Your task to perform on an android device: turn on wifi Image 0: 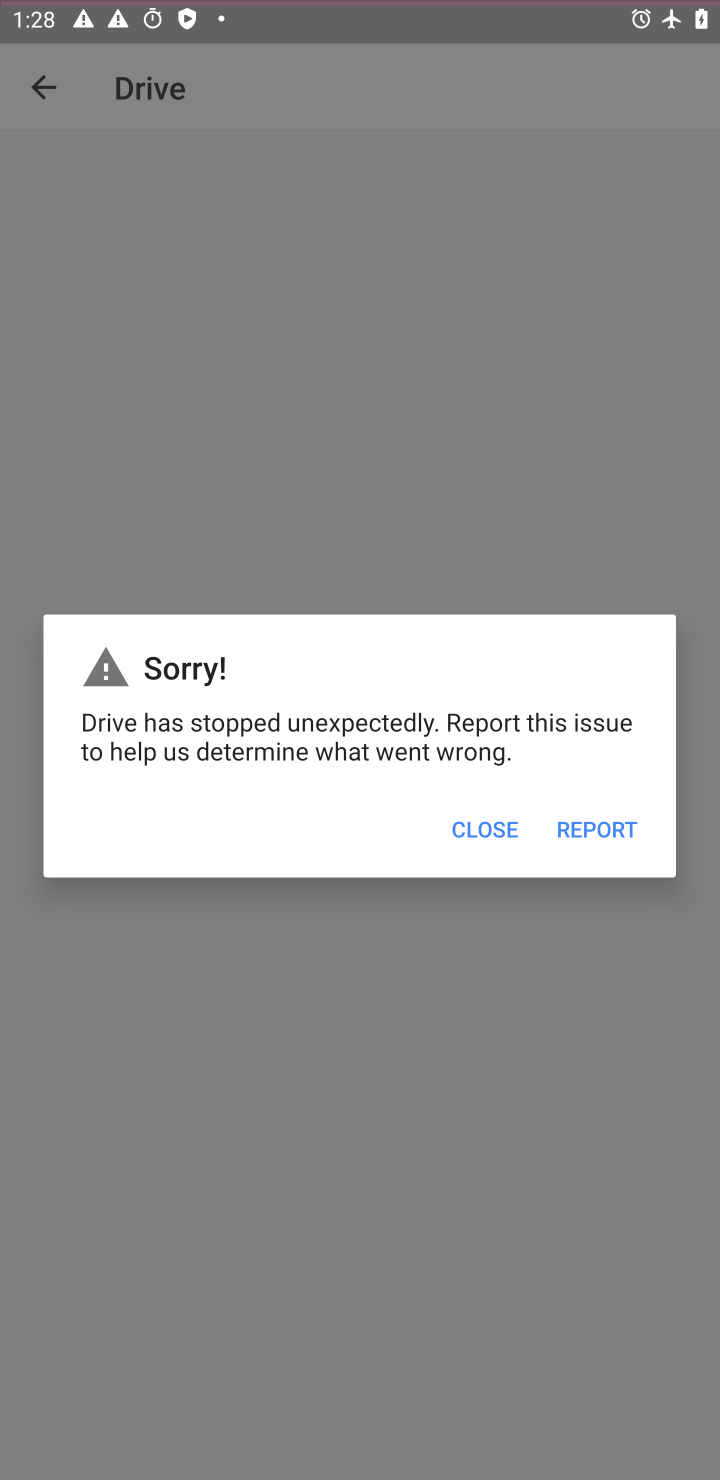
Step 0: press home button
Your task to perform on an android device: turn on wifi Image 1: 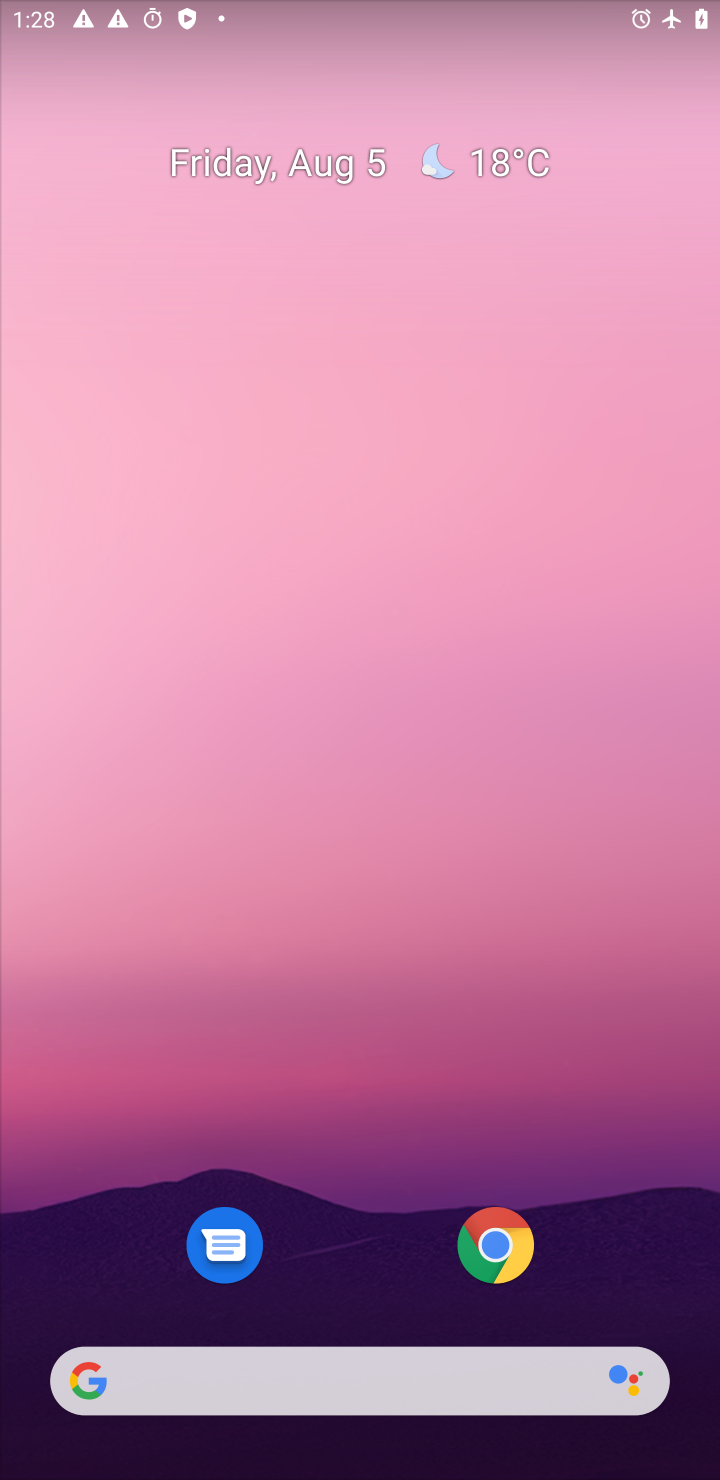
Step 1: press home button
Your task to perform on an android device: turn on wifi Image 2: 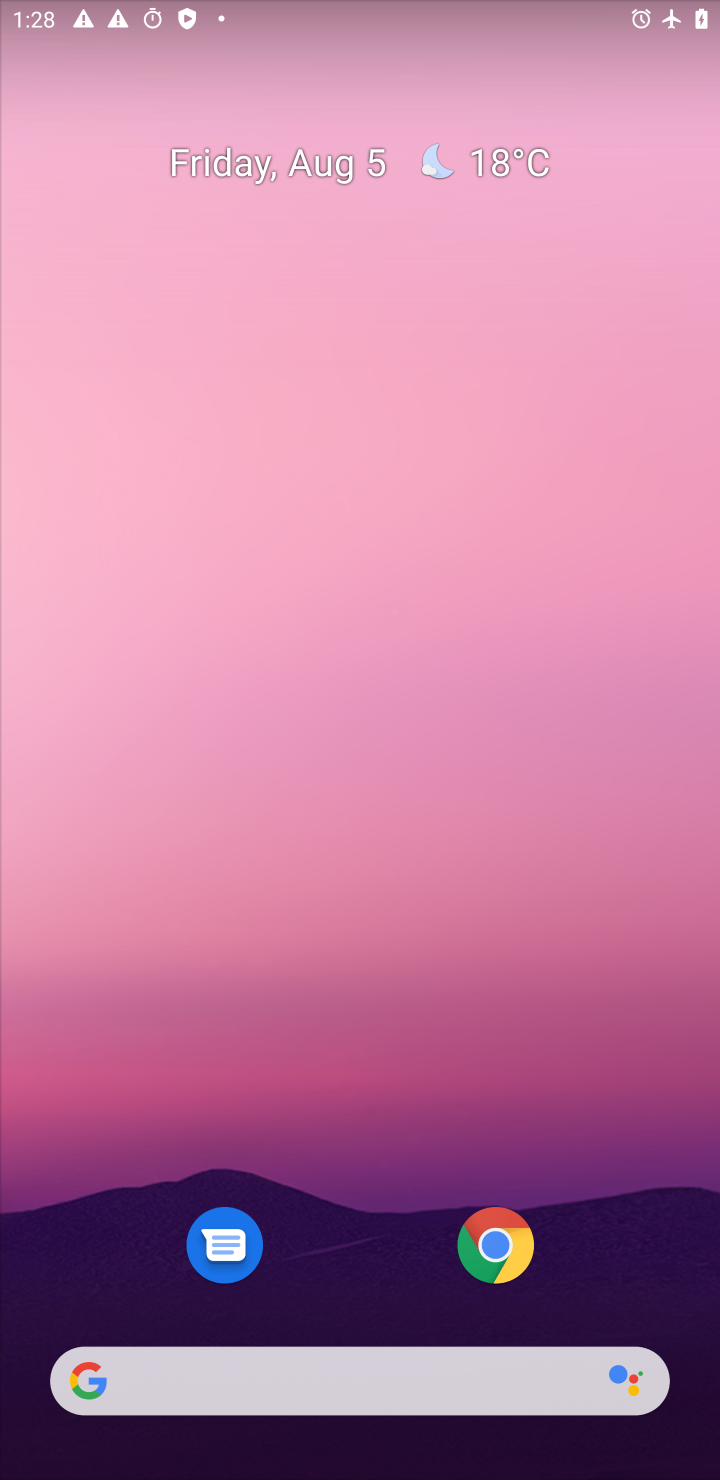
Step 2: drag from (410, 10) to (382, 530)
Your task to perform on an android device: turn on wifi Image 3: 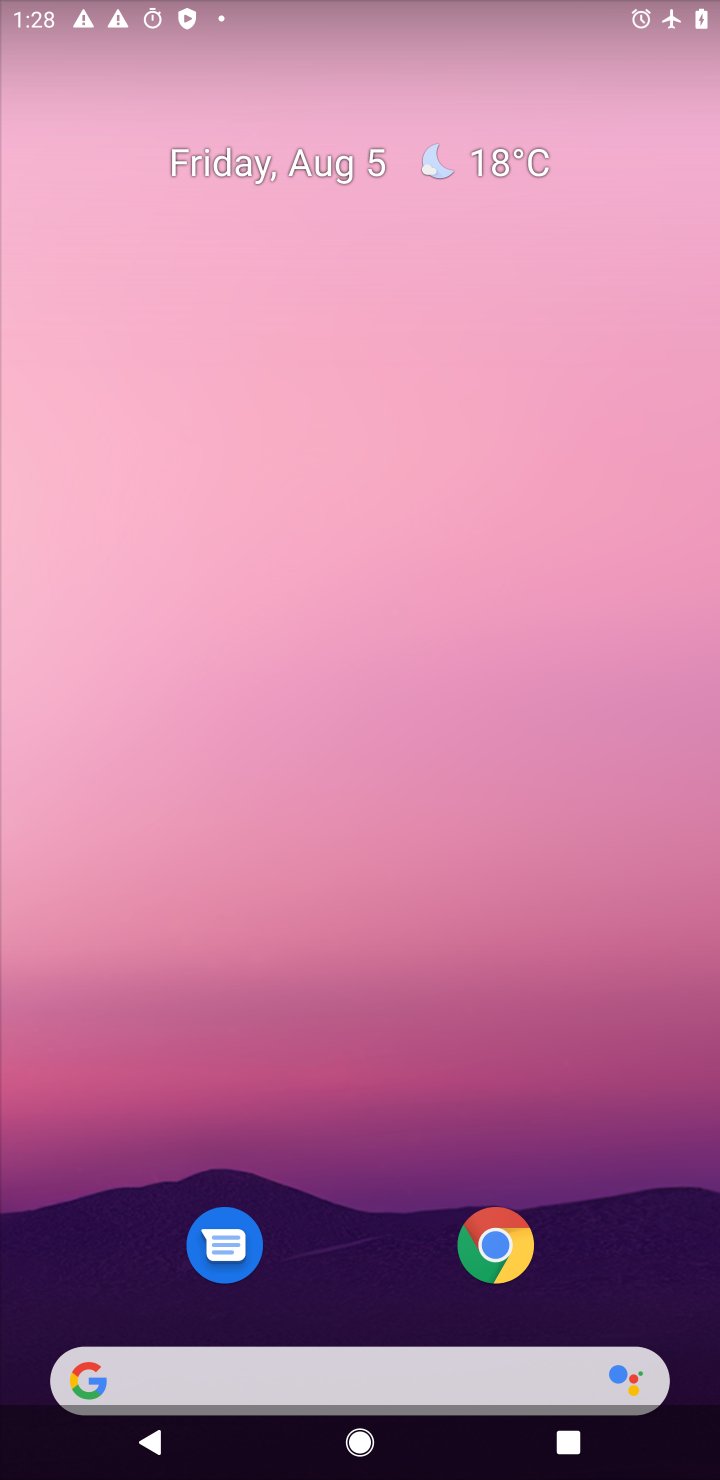
Step 3: drag from (451, 66) to (321, 1308)
Your task to perform on an android device: turn on wifi Image 4: 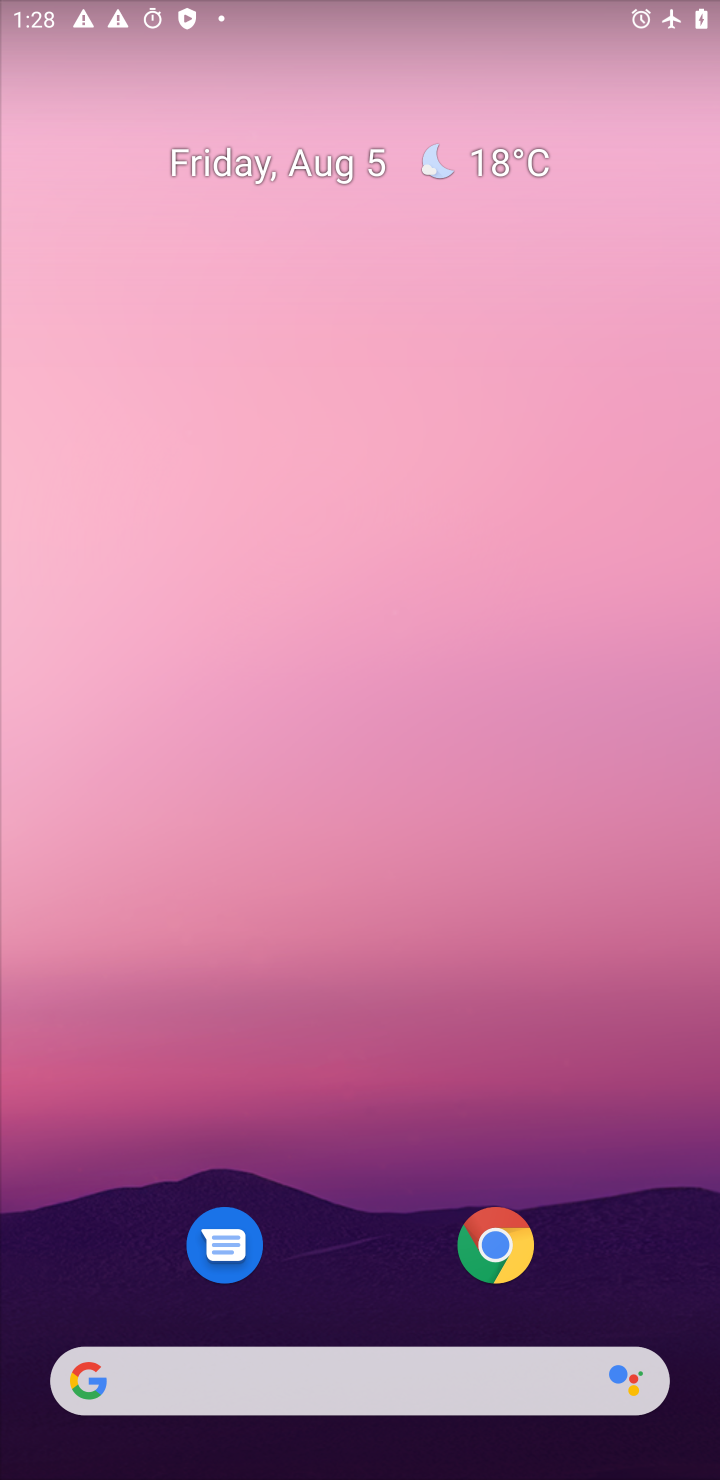
Step 4: drag from (313, 21) to (180, 901)
Your task to perform on an android device: turn on wifi Image 5: 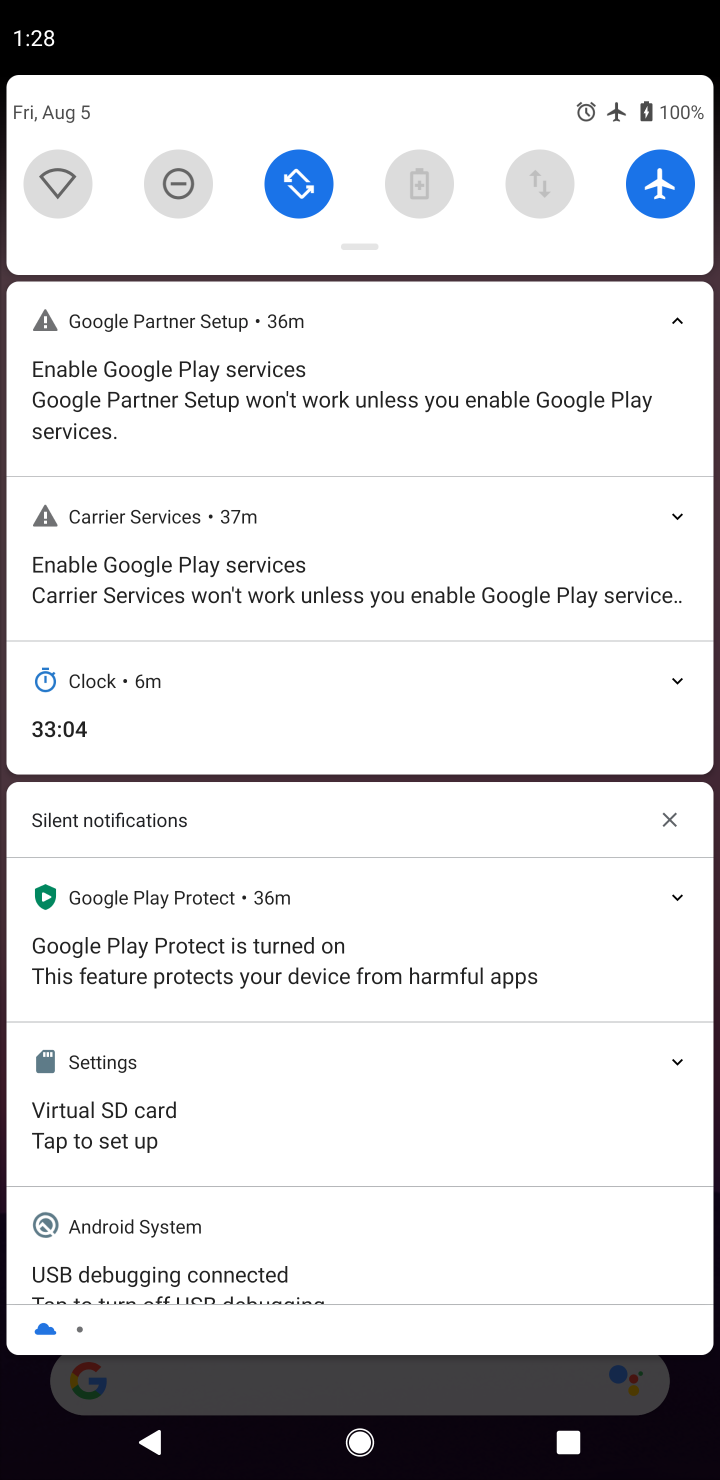
Step 5: click (49, 173)
Your task to perform on an android device: turn on wifi Image 6: 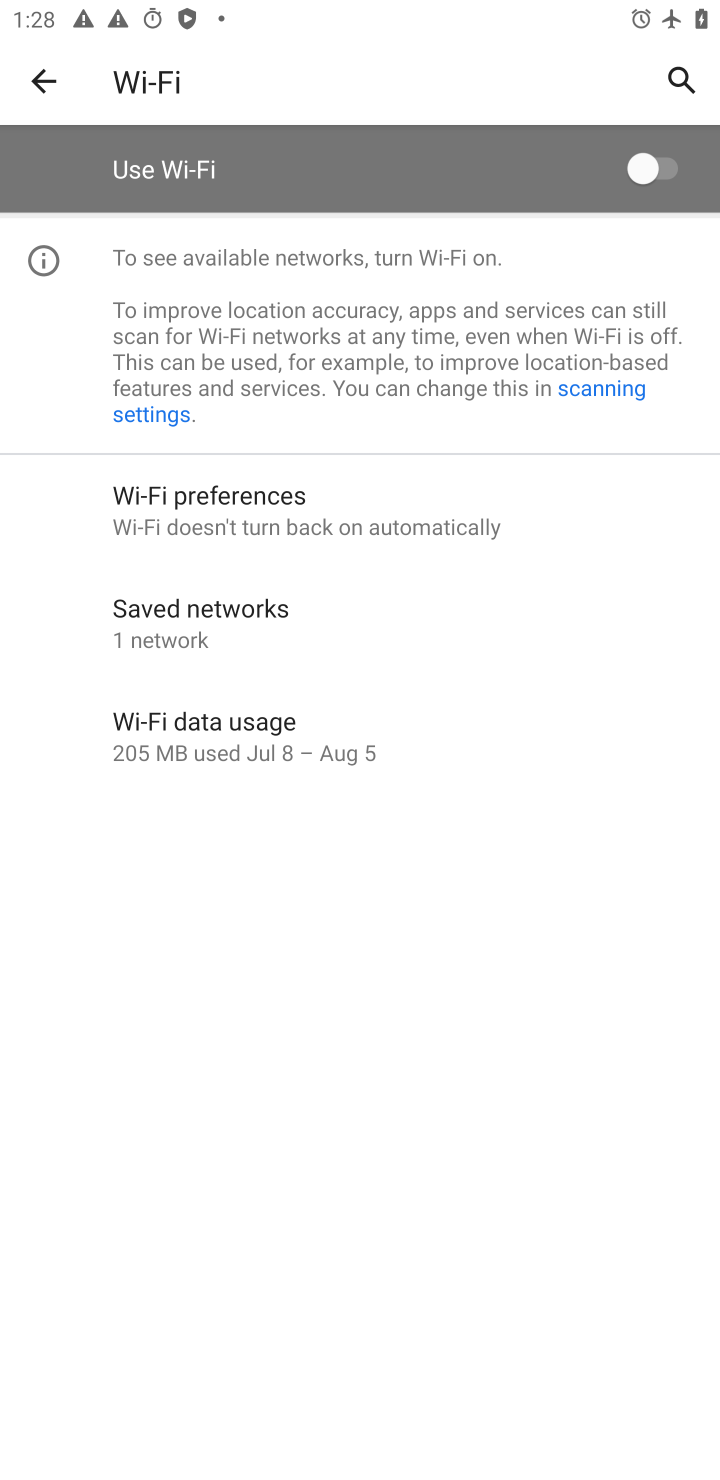
Step 6: click (651, 168)
Your task to perform on an android device: turn on wifi Image 7: 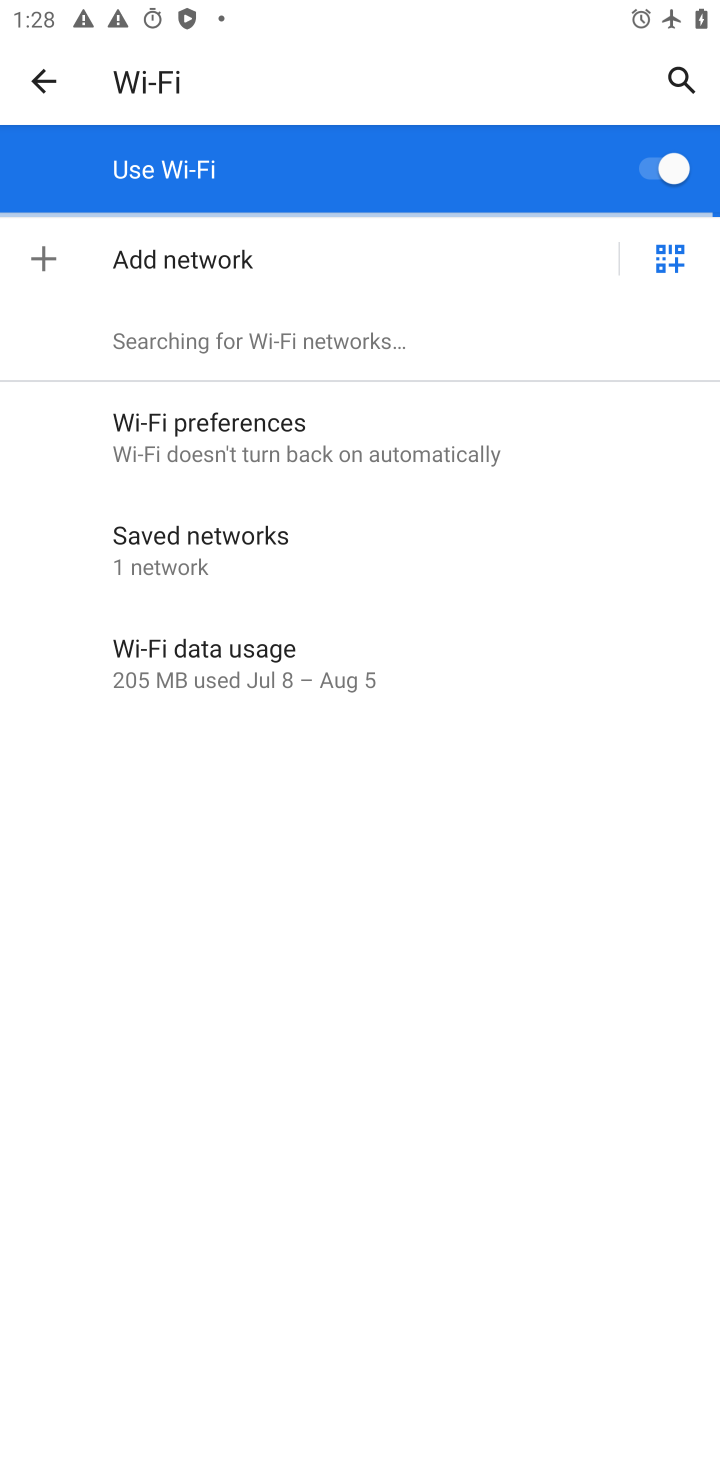
Step 7: task complete